Your task to perform on an android device: turn off picture-in-picture Image 0: 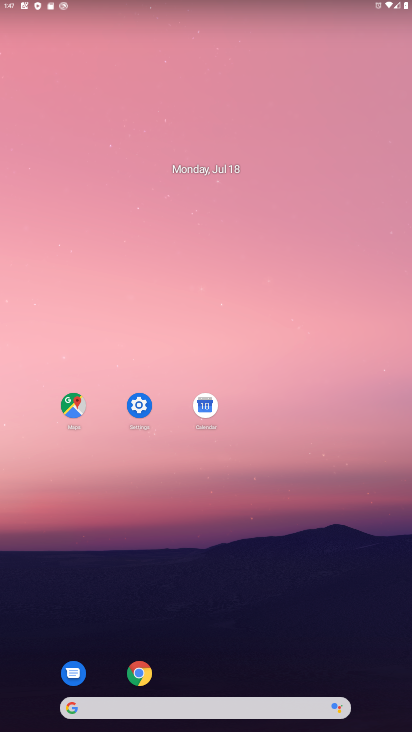
Step 0: click (131, 670)
Your task to perform on an android device: turn off picture-in-picture Image 1: 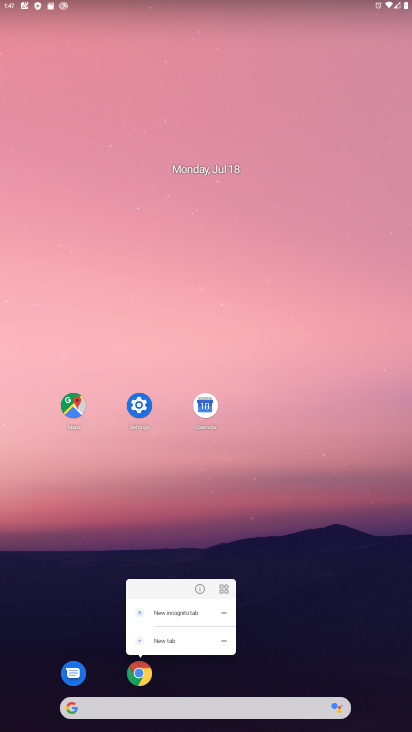
Step 1: click (198, 588)
Your task to perform on an android device: turn off picture-in-picture Image 2: 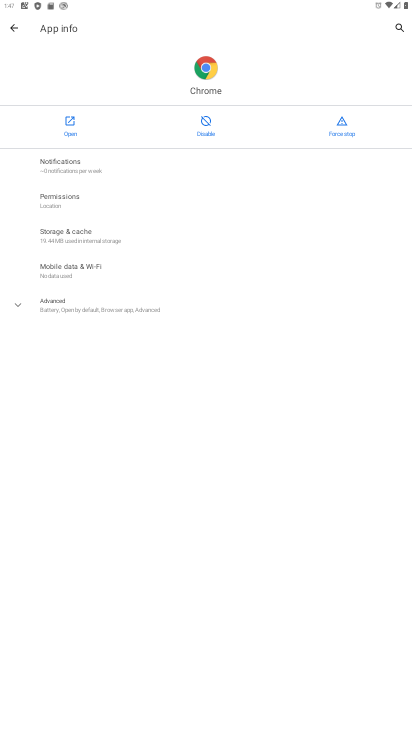
Step 2: click (14, 304)
Your task to perform on an android device: turn off picture-in-picture Image 3: 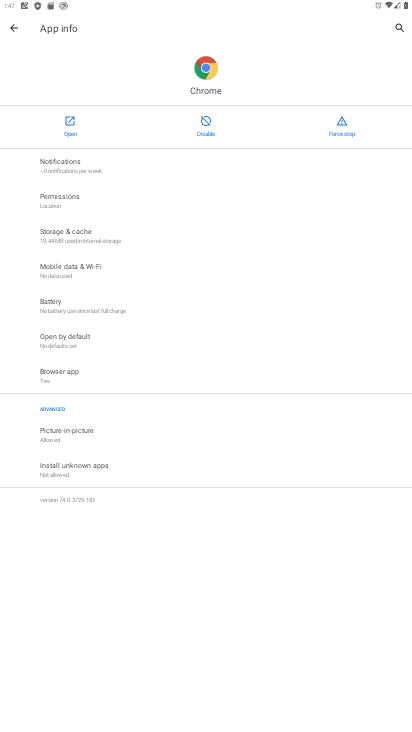
Step 3: click (76, 434)
Your task to perform on an android device: turn off picture-in-picture Image 4: 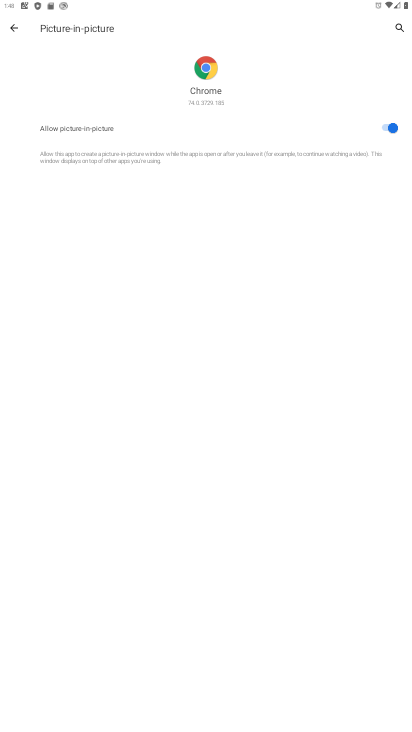
Step 4: click (394, 125)
Your task to perform on an android device: turn off picture-in-picture Image 5: 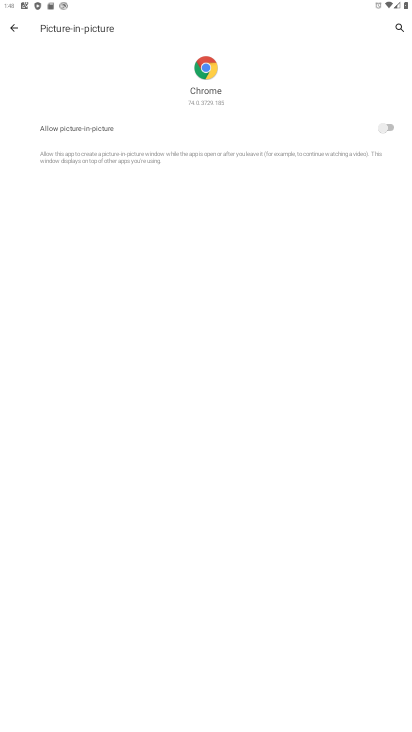
Step 5: task complete